Your task to perform on an android device: Open internet settings Image 0: 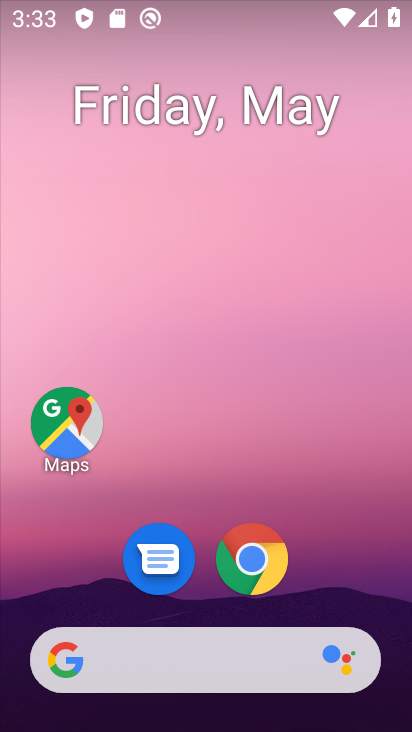
Step 0: drag from (328, 543) to (305, 22)
Your task to perform on an android device: Open internet settings Image 1: 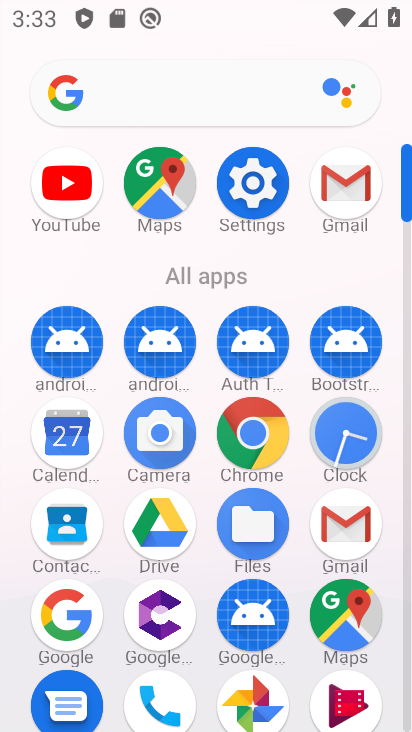
Step 1: click (257, 175)
Your task to perform on an android device: Open internet settings Image 2: 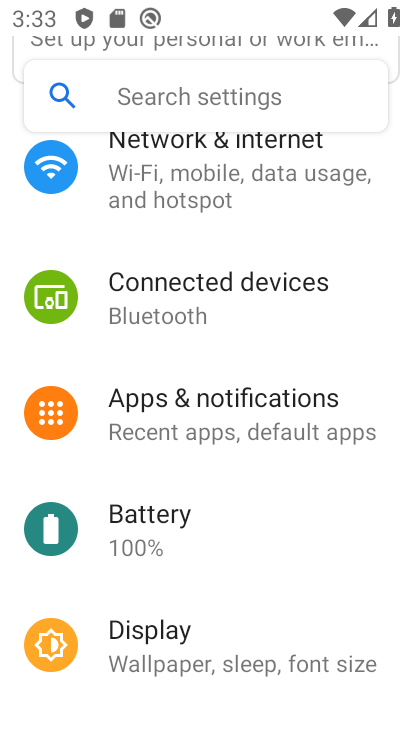
Step 2: drag from (250, 178) to (256, 588)
Your task to perform on an android device: Open internet settings Image 3: 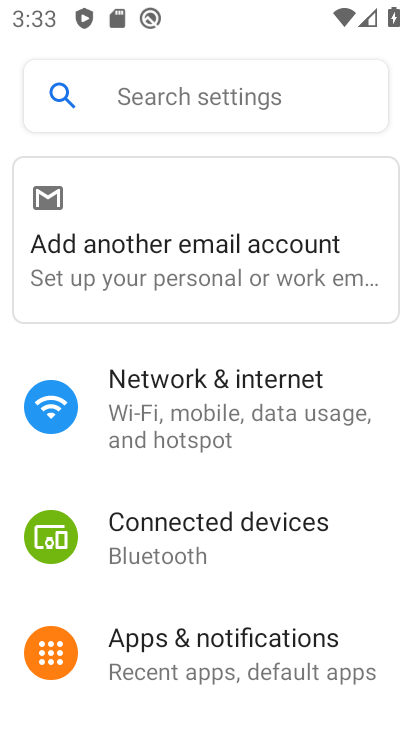
Step 3: click (210, 401)
Your task to perform on an android device: Open internet settings Image 4: 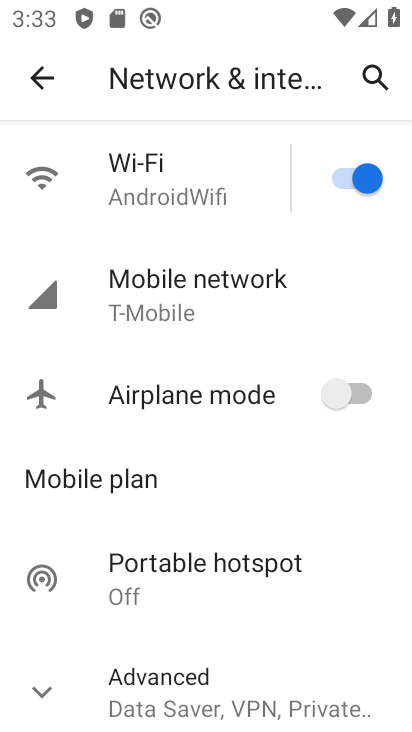
Step 4: task complete